Your task to perform on an android device: What is the capital of Canada? Image 0: 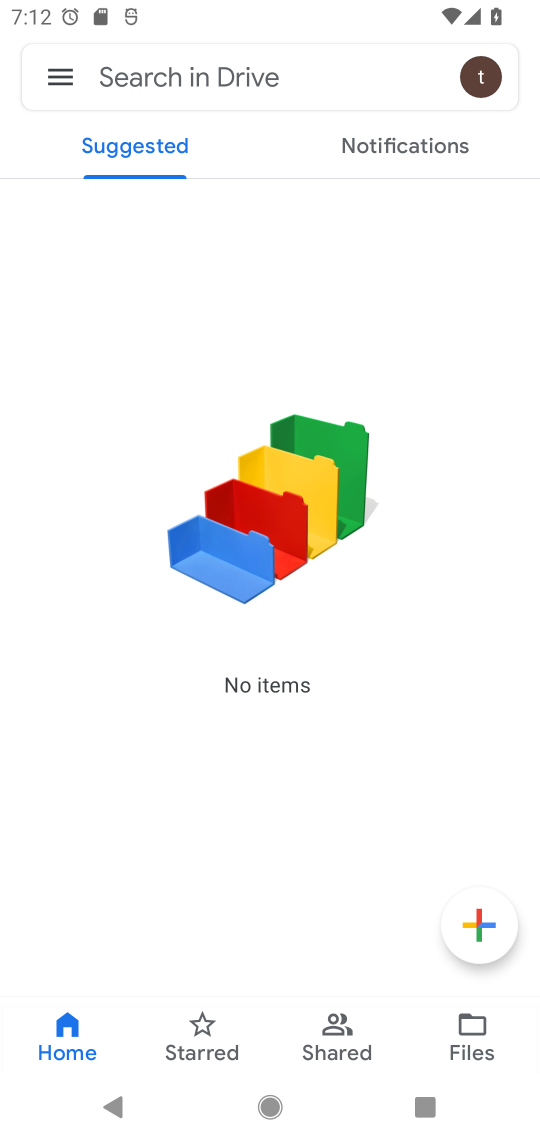
Step 0: press home button
Your task to perform on an android device: What is the capital of Canada? Image 1: 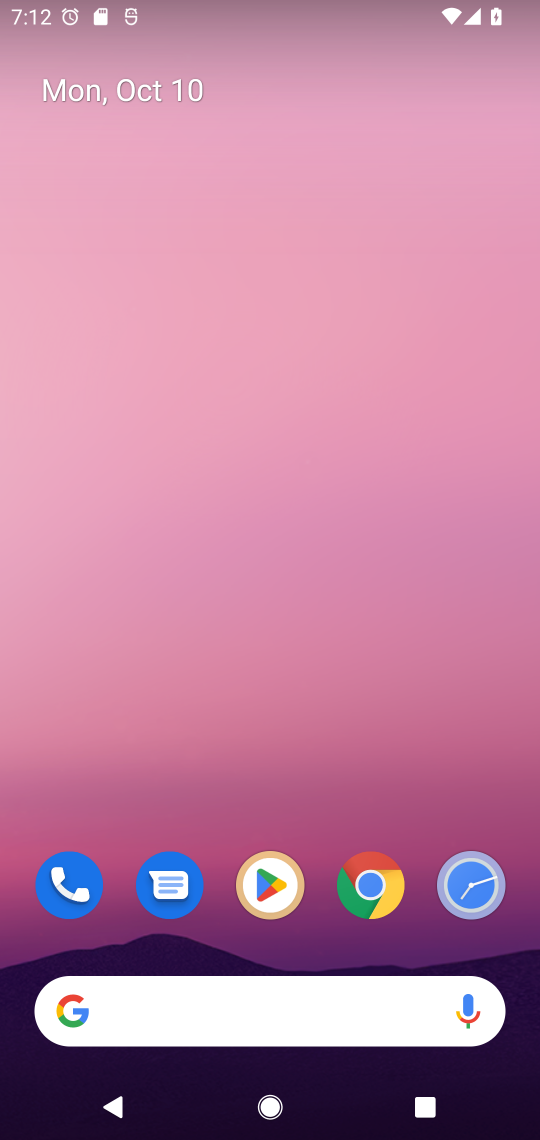
Step 1: click (377, 895)
Your task to perform on an android device: What is the capital of Canada? Image 2: 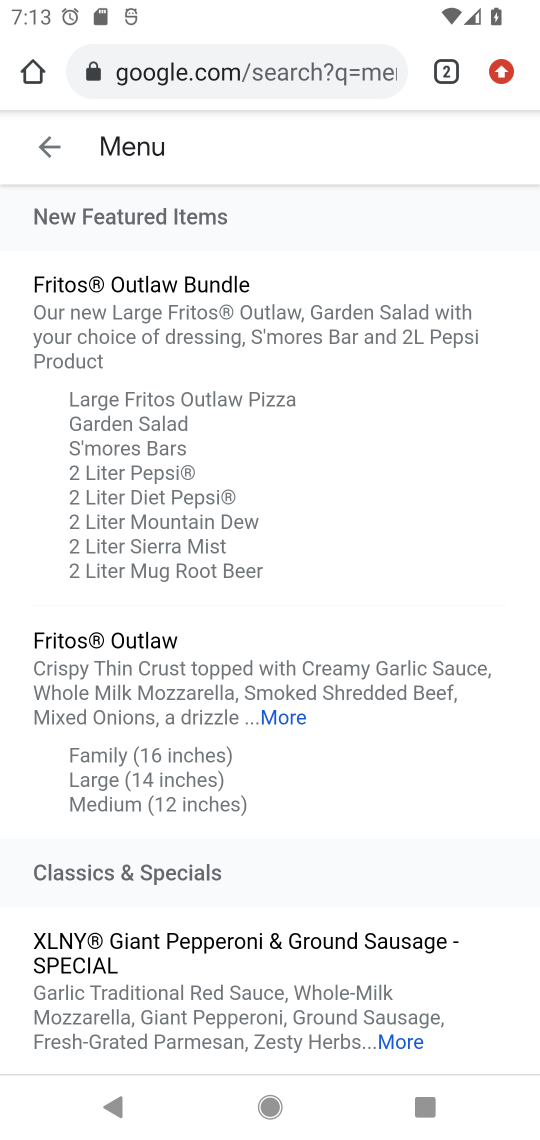
Step 2: click (246, 62)
Your task to perform on an android device: What is the capital of Canada? Image 3: 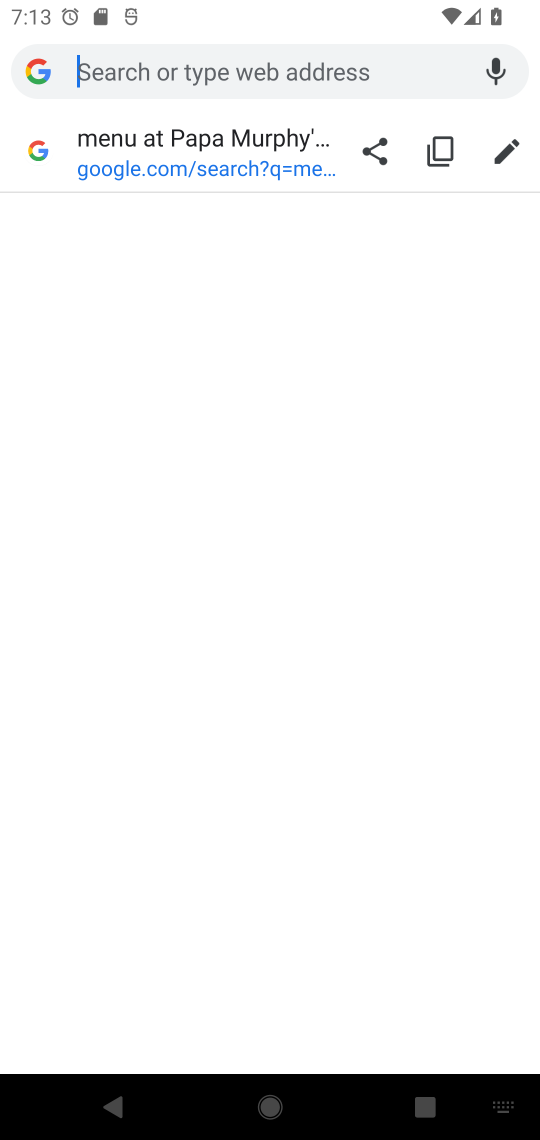
Step 3: click (263, 73)
Your task to perform on an android device: What is the capital of Canada? Image 4: 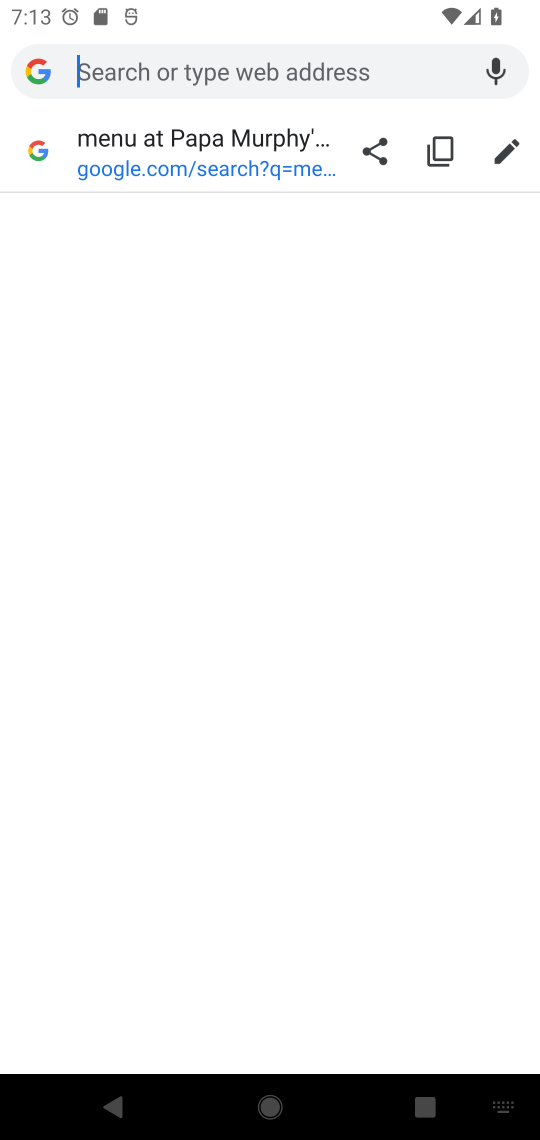
Step 4: type "capital of Canada"
Your task to perform on an android device: What is the capital of Canada? Image 5: 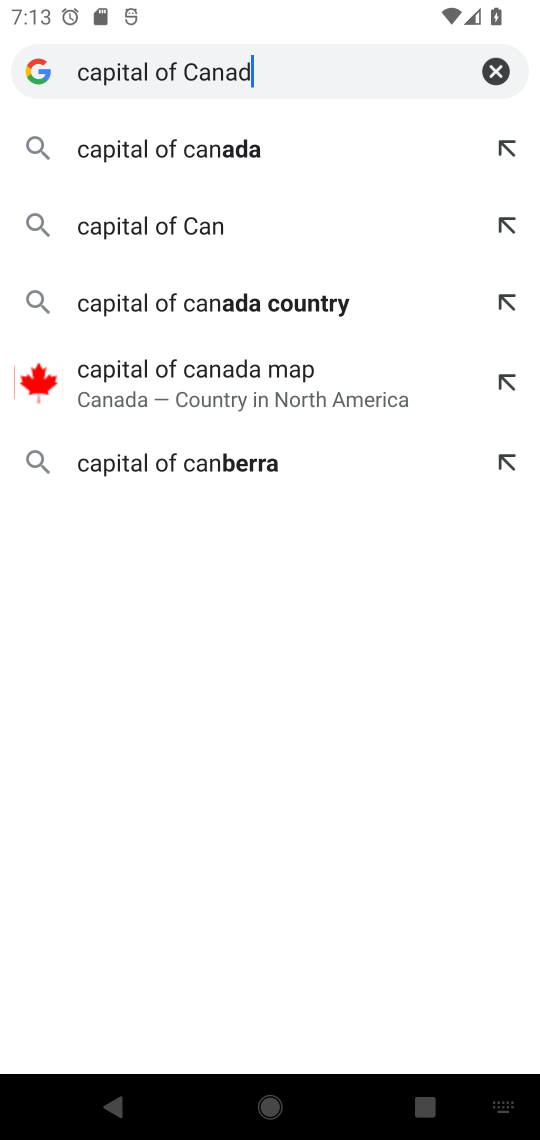
Step 5: type ""
Your task to perform on an android device: What is the capital of Canada? Image 6: 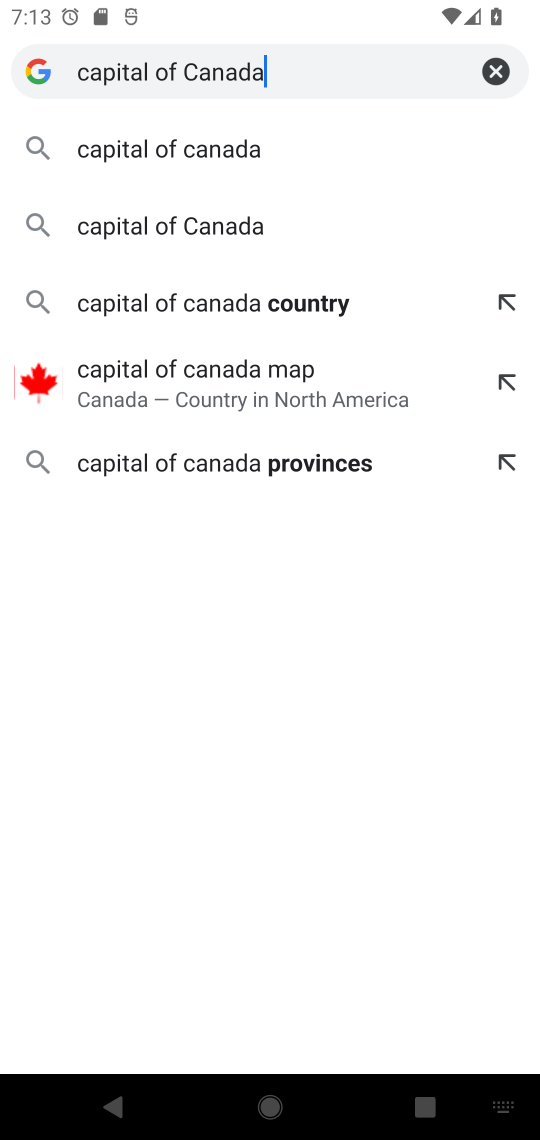
Step 6: click (192, 147)
Your task to perform on an android device: What is the capital of Canada? Image 7: 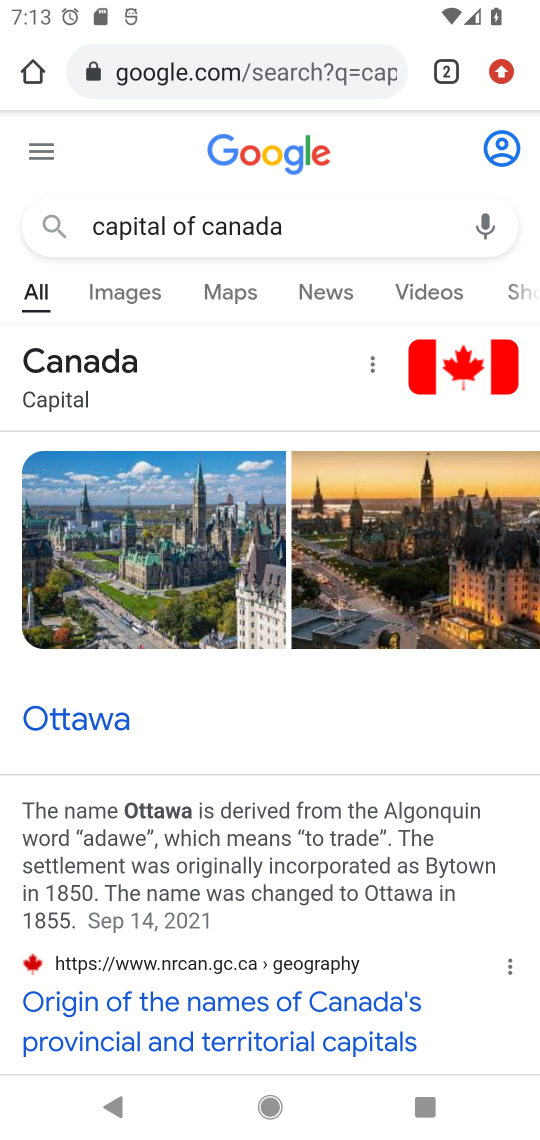
Step 7: task complete